Your task to perform on an android device: turn on showing notifications on the lock screen Image 0: 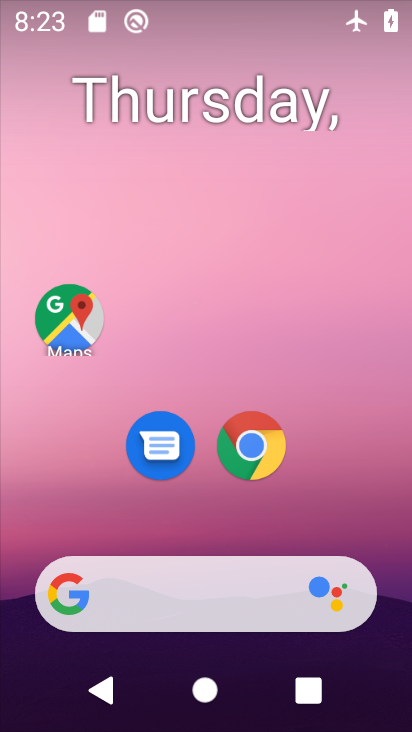
Step 0: drag from (307, 499) to (214, 110)
Your task to perform on an android device: turn on showing notifications on the lock screen Image 1: 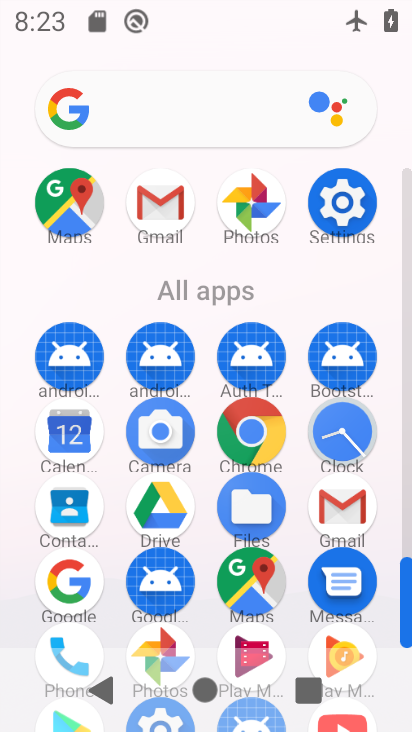
Step 1: click (348, 199)
Your task to perform on an android device: turn on showing notifications on the lock screen Image 2: 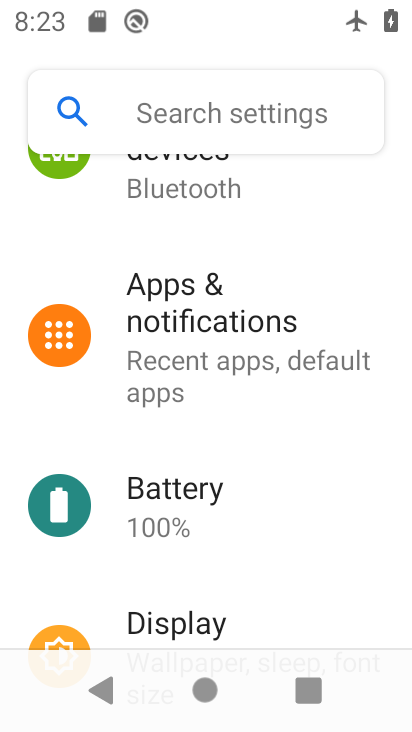
Step 2: click (190, 364)
Your task to perform on an android device: turn on showing notifications on the lock screen Image 3: 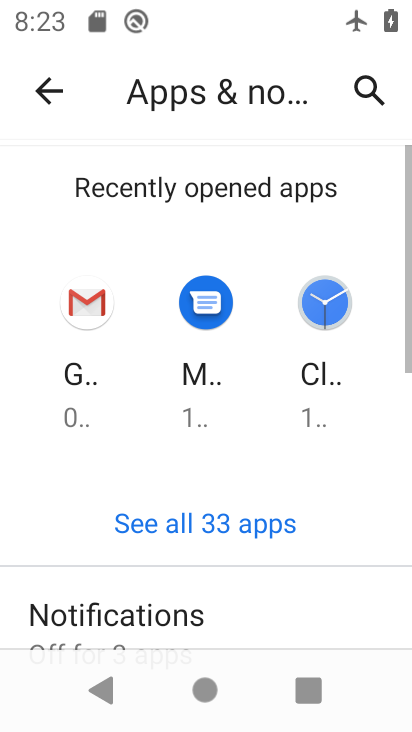
Step 3: drag from (233, 602) to (195, 282)
Your task to perform on an android device: turn on showing notifications on the lock screen Image 4: 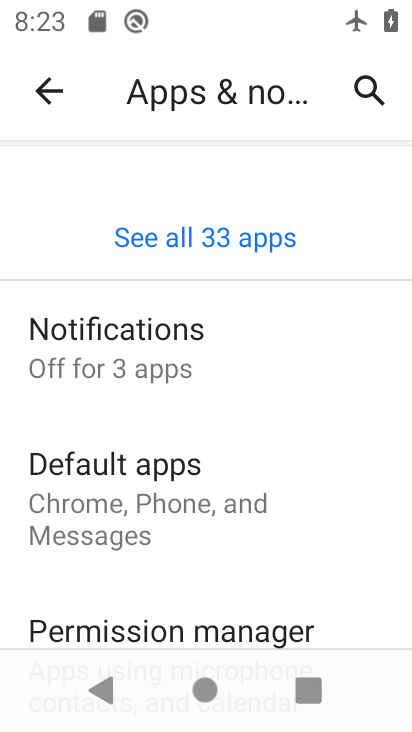
Step 4: click (130, 332)
Your task to perform on an android device: turn on showing notifications on the lock screen Image 5: 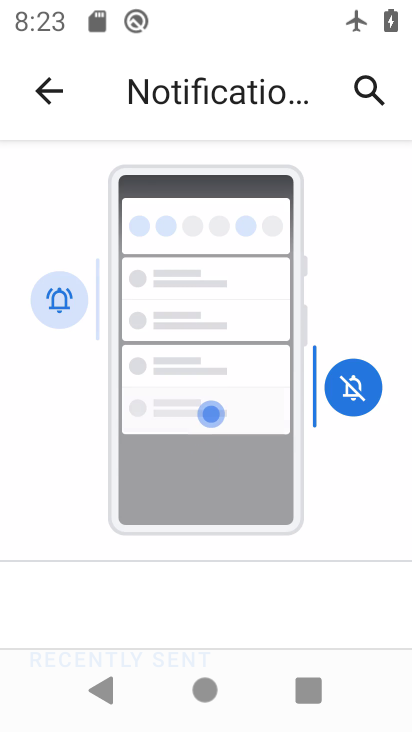
Step 5: task complete